Your task to perform on an android device: remove spam from my inbox in the gmail app Image 0: 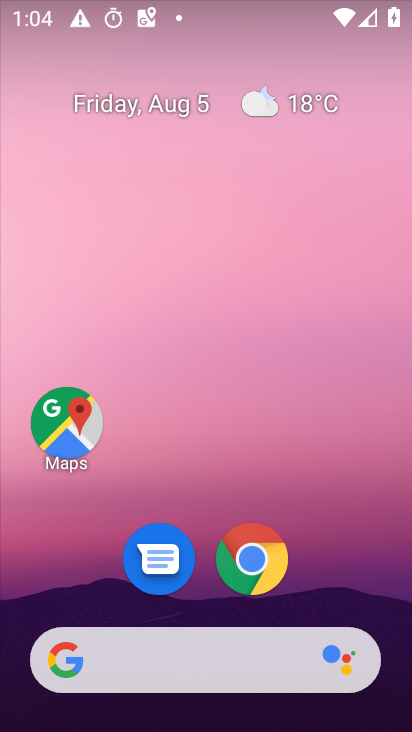
Step 0: drag from (33, 710) to (163, 206)
Your task to perform on an android device: remove spam from my inbox in the gmail app Image 1: 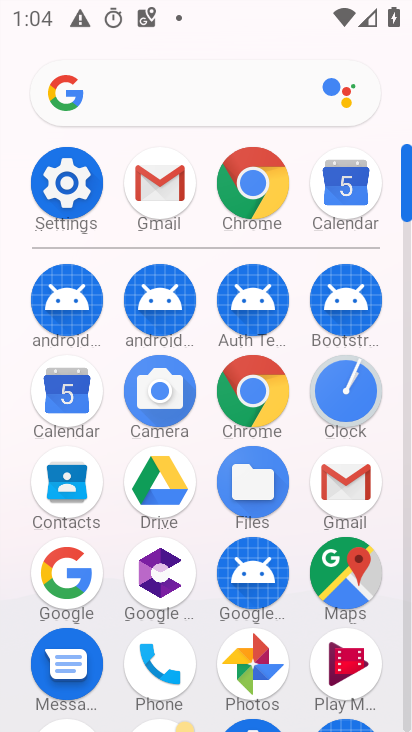
Step 1: click (364, 472)
Your task to perform on an android device: remove spam from my inbox in the gmail app Image 2: 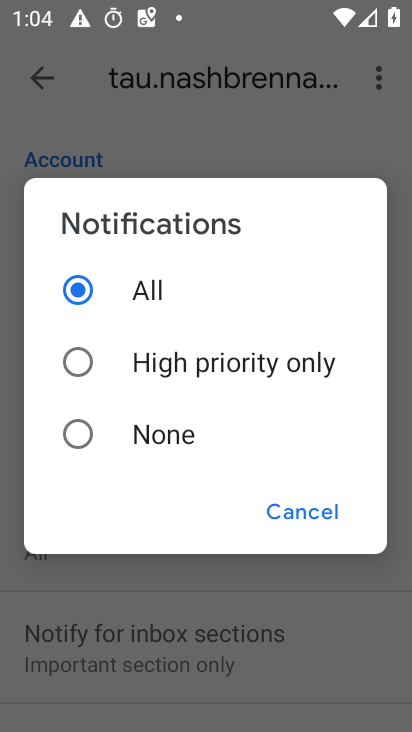
Step 2: click (299, 517)
Your task to perform on an android device: remove spam from my inbox in the gmail app Image 3: 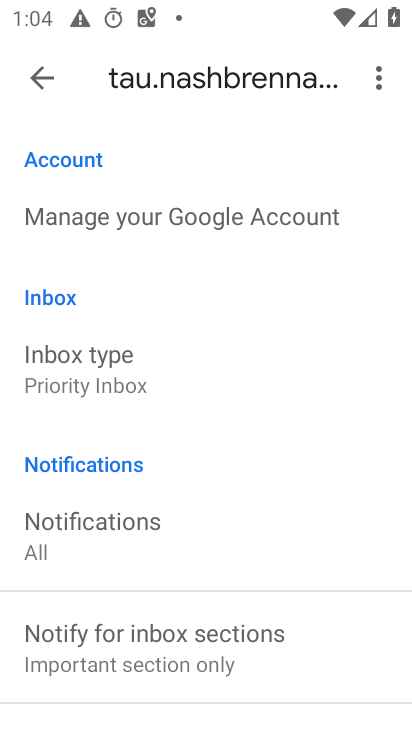
Step 3: click (52, 69)
Your task to perform on an android device: remove spam from my inbox in the gmail app Image 4: 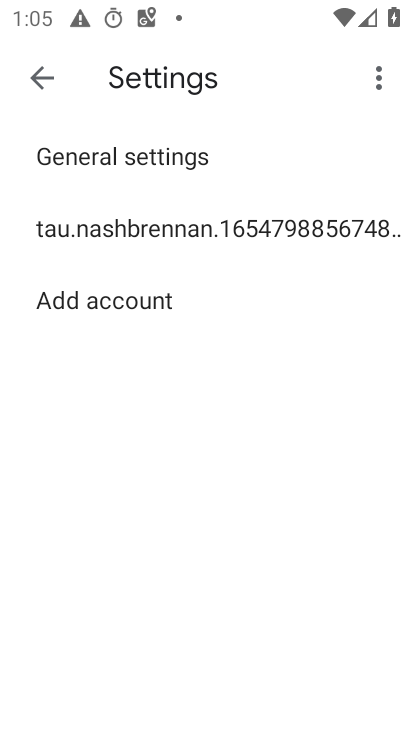
Step 4: click (42, 83)
Your task to perform on an android device: remove spam from my inbox in the gmail app Image 5: 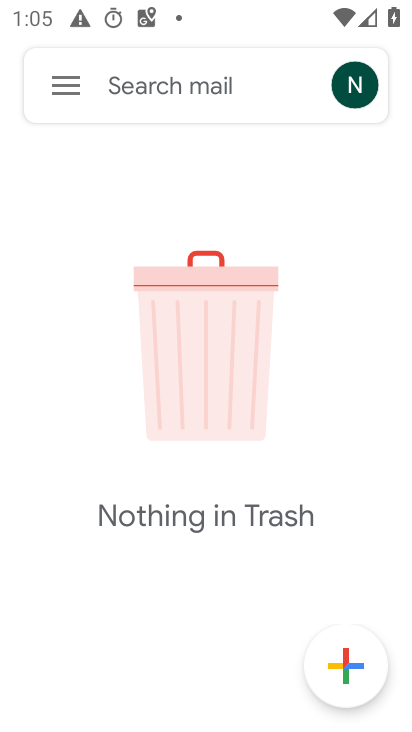
Step 5: click (57, 81)
Your task to perform on an android device: remove spam from my inbox in the gmail app Image 6: 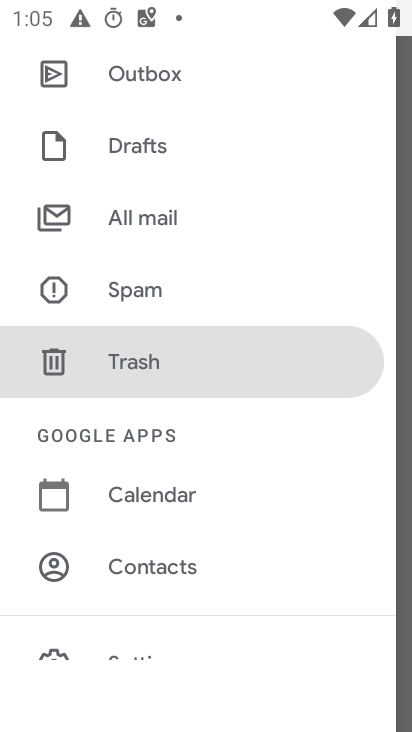
Step 6: click (166, 302)
Your task to perform on an android device: remove spam from my inbox in the gmail app Image 7: 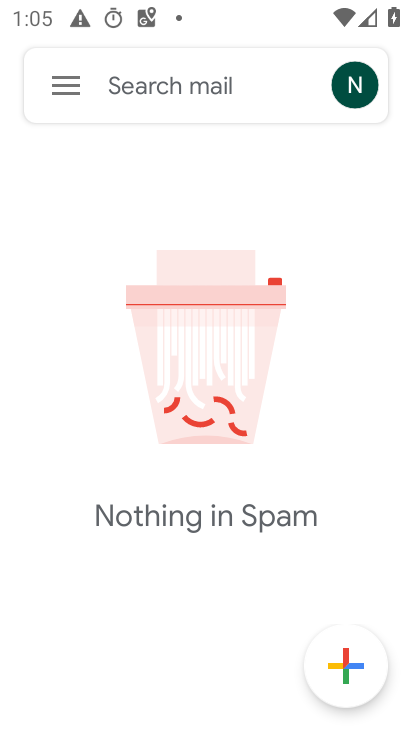
Step 7: task complete